Your task to perform on an android device: toggle pop-ups in chrome Image 0: 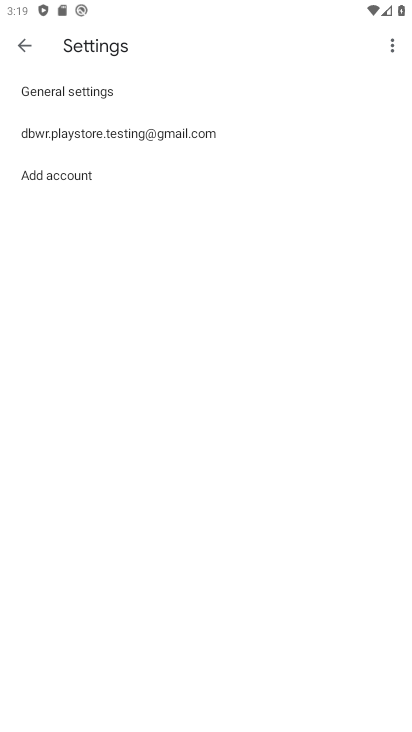
Step 0: press home button
Your task to perform on an android device: toggle pop-ups in chrome Image 1: 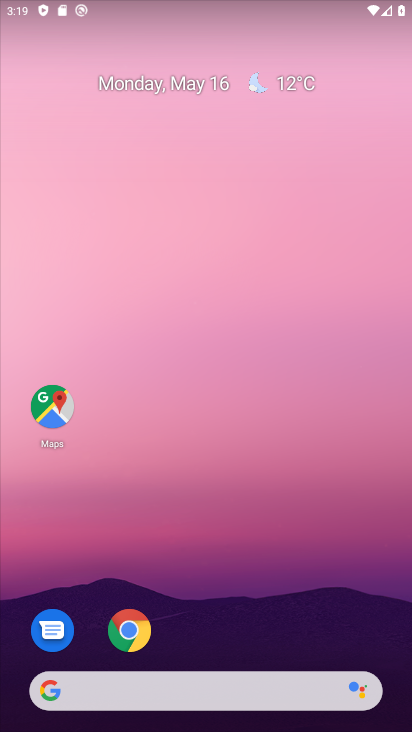
Step 1: click (135, 652)
Your task to perform on an android device: toggle pop-ups in chrome Image 2: 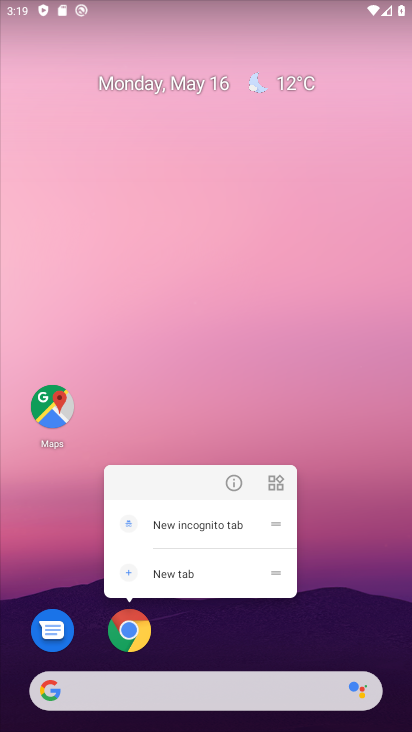
Step 2: click (132, 638)
Your task to perform on an android device: toggle pop-ups in chrome Image 3: 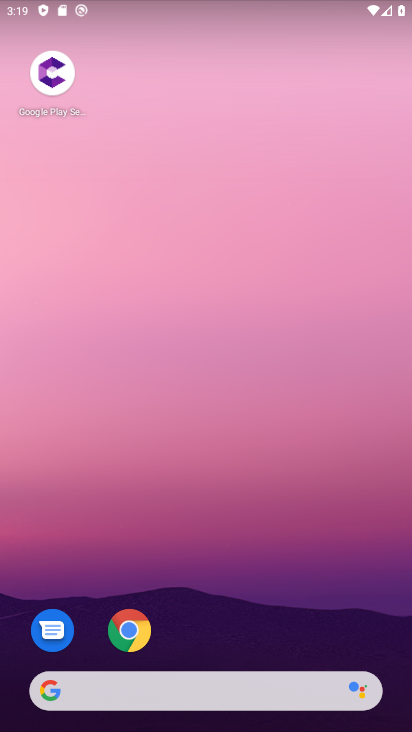
Step 3: click (119, 625)
Your task to perform on an android device: toggle pop-ups in chrome Image 4: 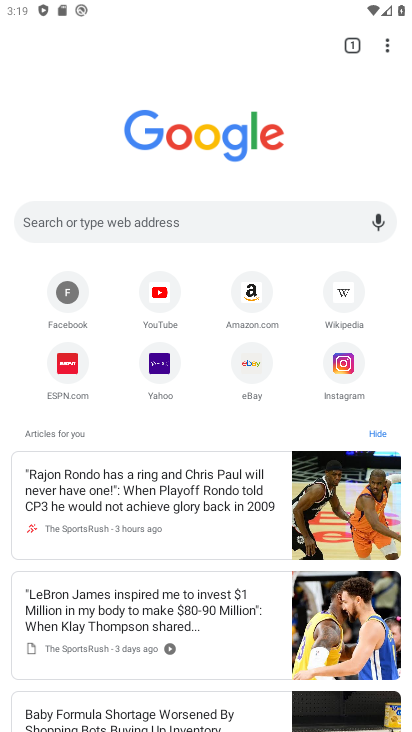
Step 4: drag from (408, 44) to (324, 371)
Your task to perform on an android device: toggle pop-ups in chrome Image 5: 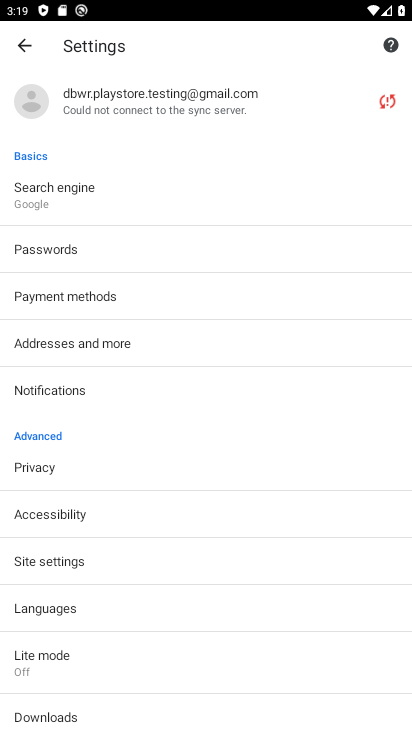
Step 5: click (135, 563)
Your task to perform on an android device: toggle pop-ups in chrome Image 6: 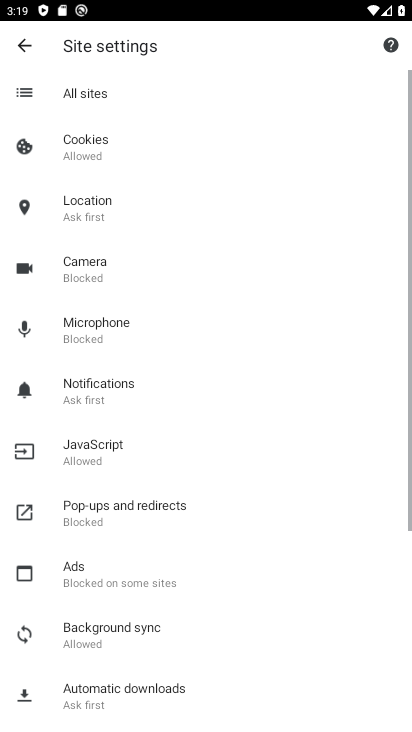
Step 6: click (169, 533)
Your task to perform on an android device: toggle pop-ups in chrome Image 7: 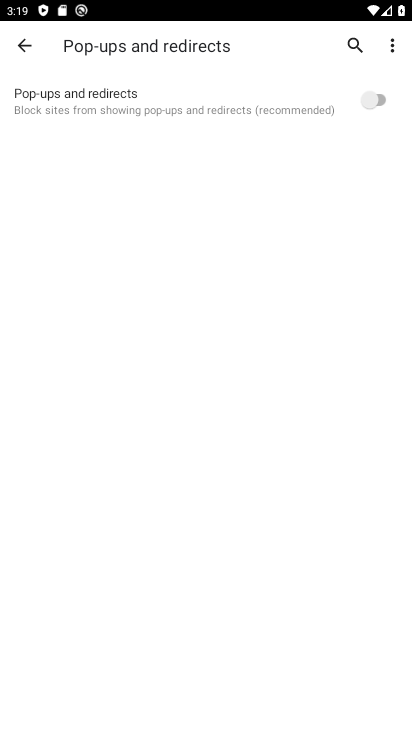
Step 7: click (385, 100)
Your task to perform on an android device: toggle pop-ups in chrome Image 8: 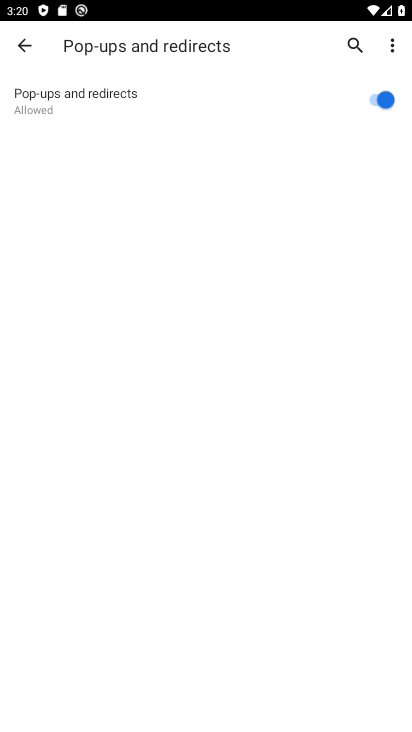
Step 8: task complete